Your task to perform on an android device: all mails in gmail Image 0: 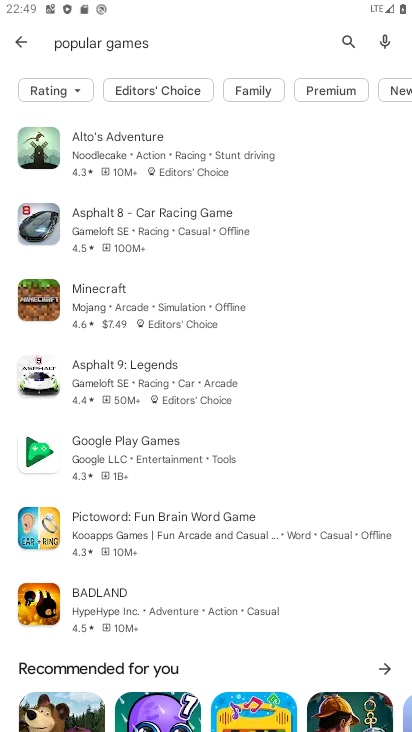
Step 0: press home button
Your task to perform on an android device: all mails in gmail Image 1: 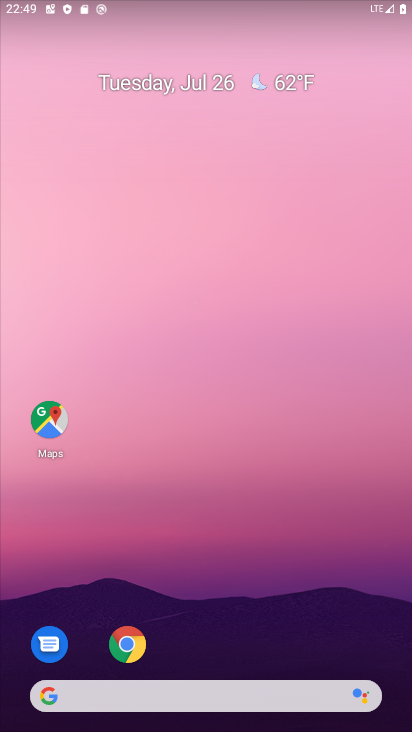
Step 1: drag from (229, 661) to (253, 16)
Your task to perform on an android device: all mails in gmail Image 2: 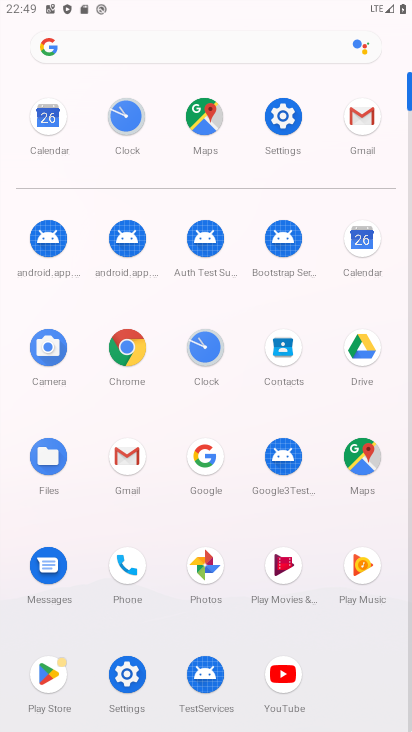
Step 2: click (356, 120)
Your task to perform on an android device: all mails in gmail Image 3: 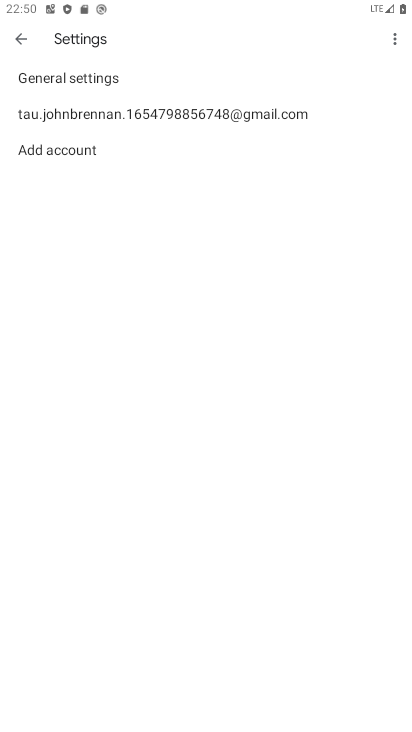
Step 3: click (5, 41)
Your task to perform on an android device: all mails in gmail Image 4: 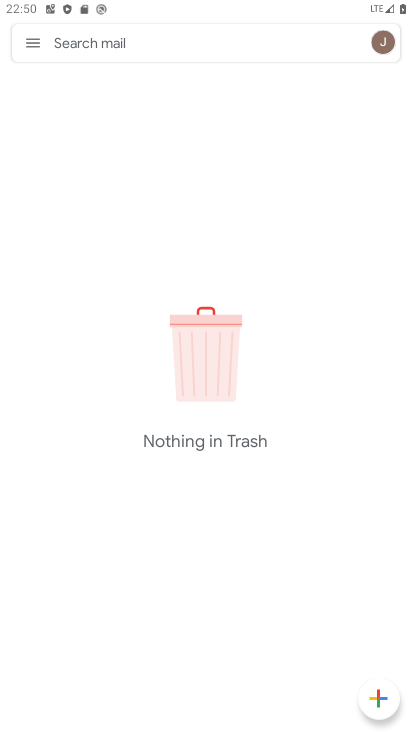
Step 4: click (22, 44)
Your task to perform on an android device: all mails in gmail Image 5: 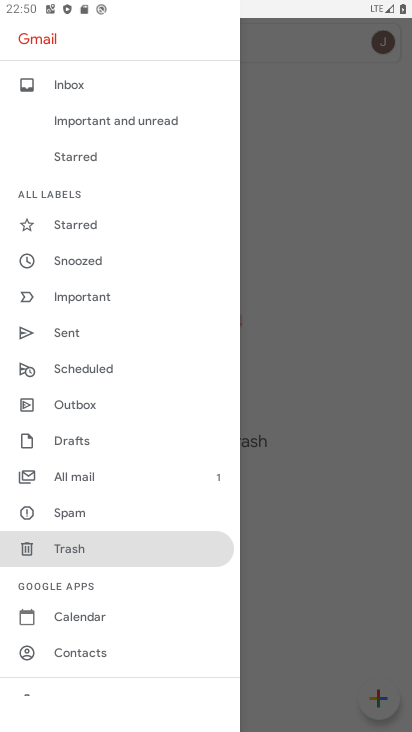
Step 5: click (79, 480)
Your task to perform on an android device: all mails in gmail Image 6: 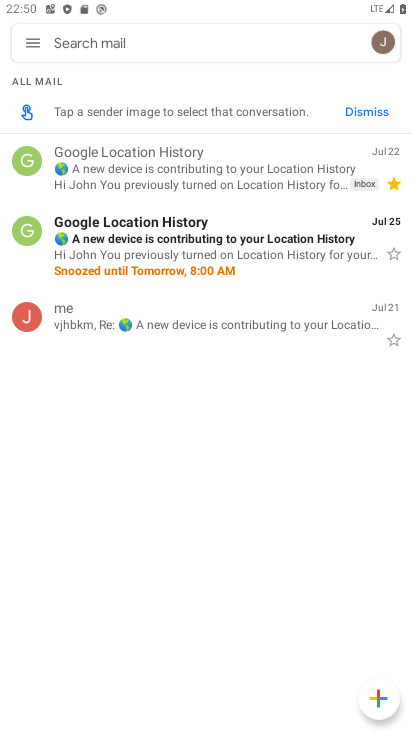
Step 6: task complete